Your task to perform on an android device: Go to CNN.com Image 0: 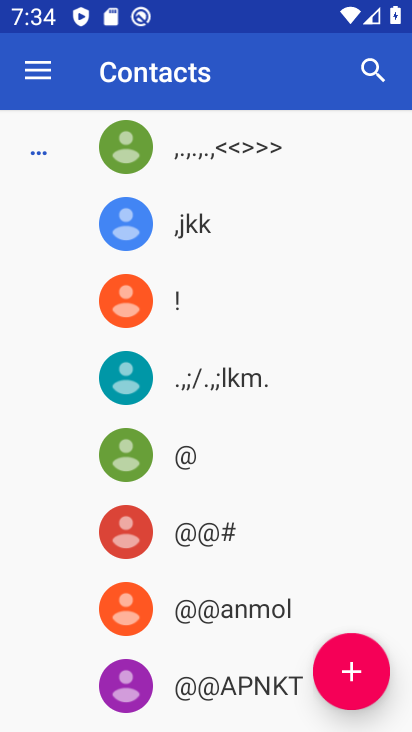
Step 0: press home button
Your task to perform on an android device: Go to CNN.com Image 1: 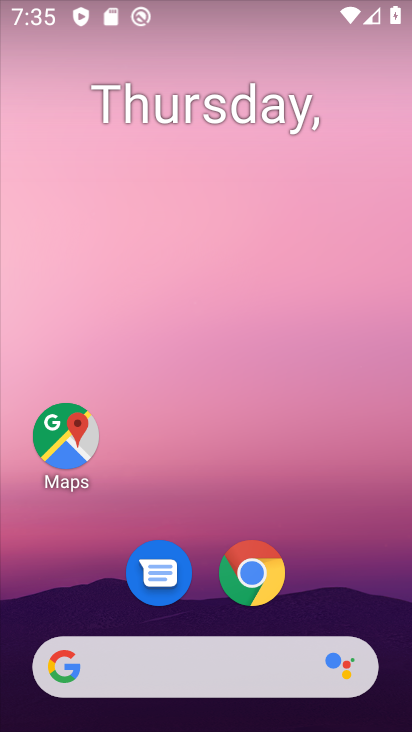
Step 1: click (254, 582)
Your task to perform on an android device: Go to CNN.com Image 2: 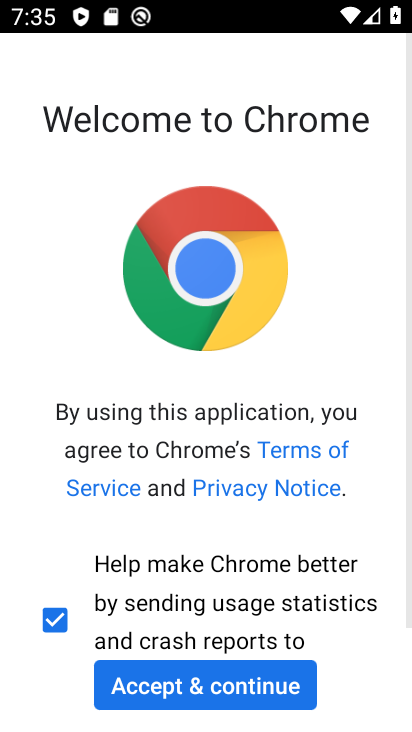
Step 2: click (255, 680)
Your task to perform on an android device: Go to CNN.com Image 3: 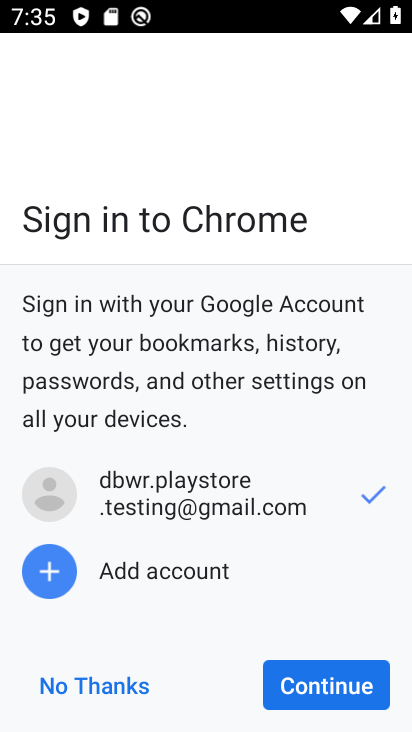
Step 3: click (268, 669)
Your task to perform on an android device: Go to CNN.com Image 4: 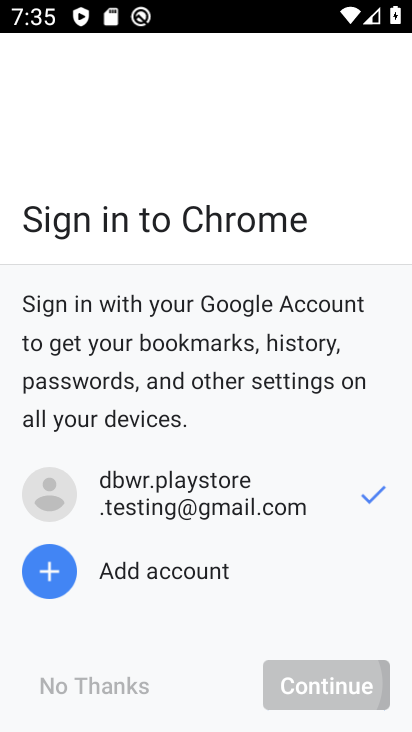
Step 4: click (332, 695)
Your task to perform on an android device: Go to CNN.com Image 5: 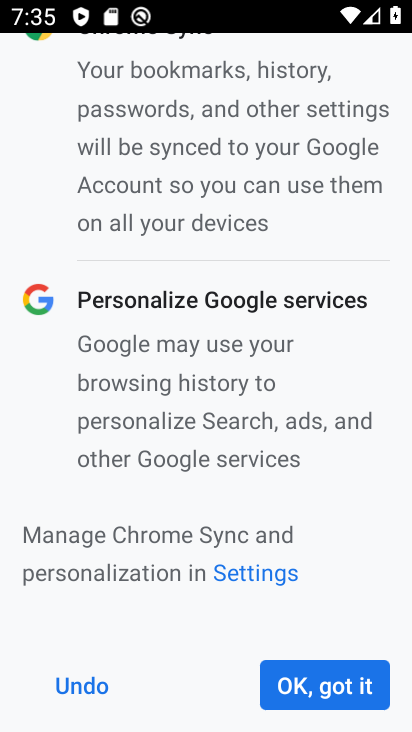
Step 5: click (332, 695)
Your task to perform on an android device: Go to CNN.com Image 6: 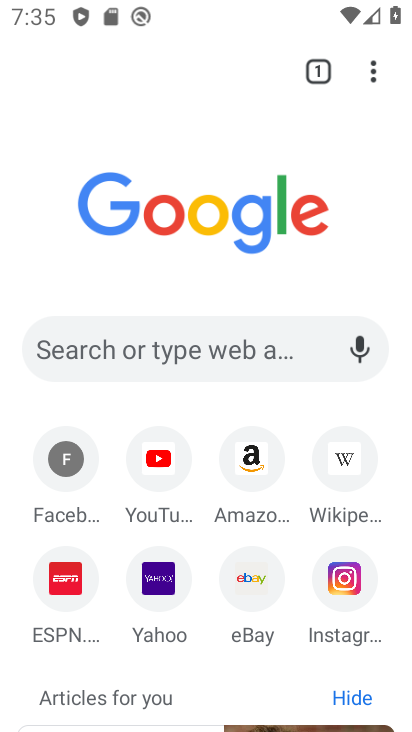
Step 6: click (254, 345)
Your task to perform on an android device: Go to CNN.com Image 7: 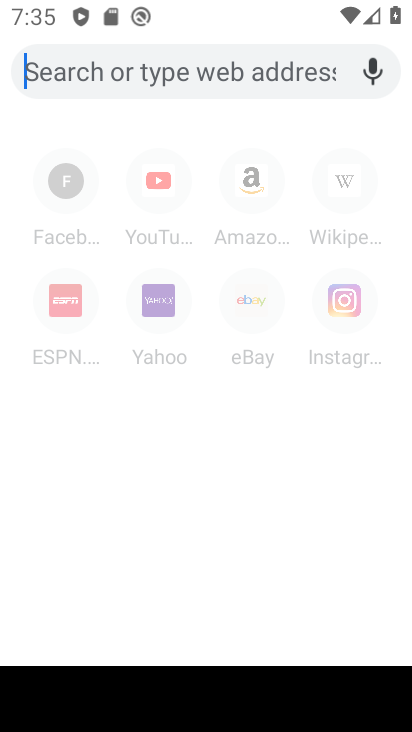
Step 7: type "cnn.com"
Your task to perform on an android device: Go to CNN.com Image 8: 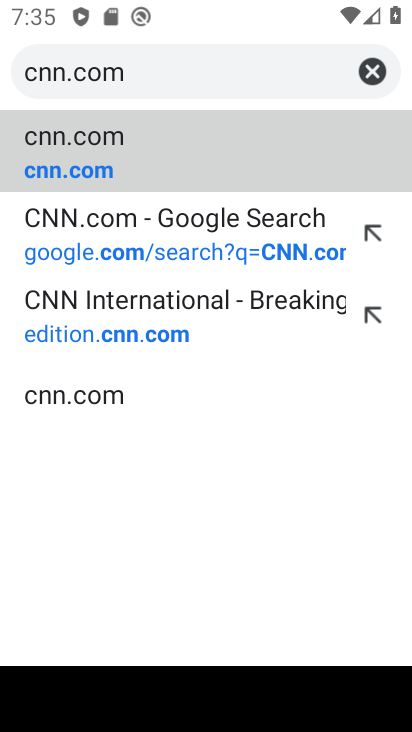
Step 8: click (96, 175)
Your task to perform on an android device: Go to CNN.com Image 9: 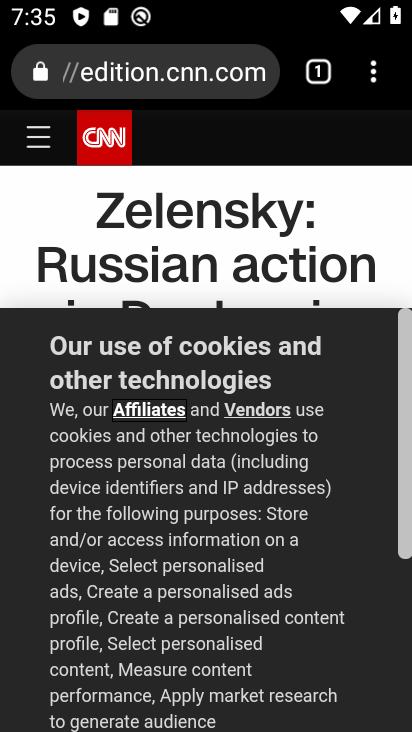
Step 9: task complete